Your task to perform on an android device: Go to ESPN.com Image 0: 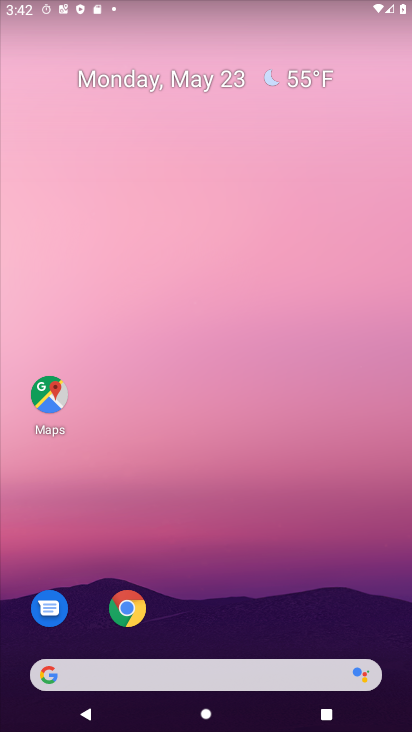
Step 0: press home button
Your task to perform on an android device: Go to ESPN.com Image 1: 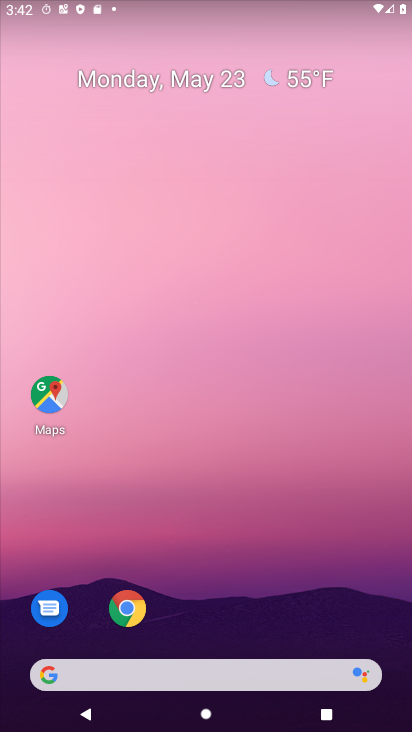
Step 1: click (123, 607)
Your task to perform on an android device: Go to ESPN.com Image 2: 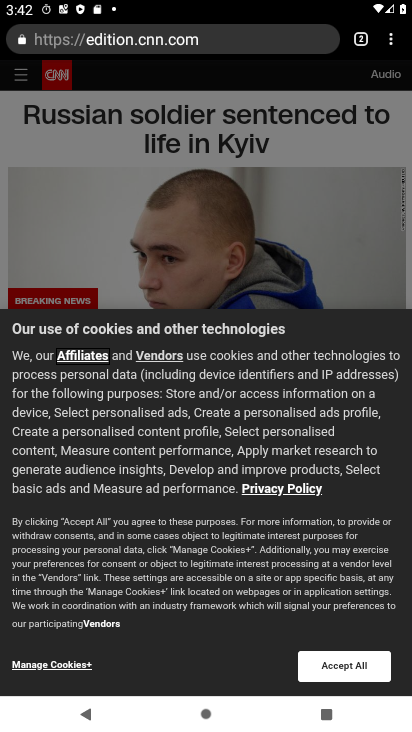
Step 2: click (363, 37)
Your task to perform on an android device: Go to ESPN.com Image 3: 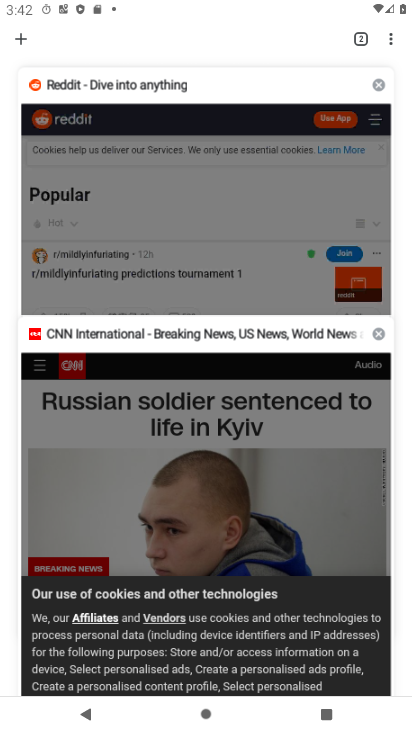
Step 3: click (24, 43)
Your task to perform on an android device: Go to ESPN.com Image 4: 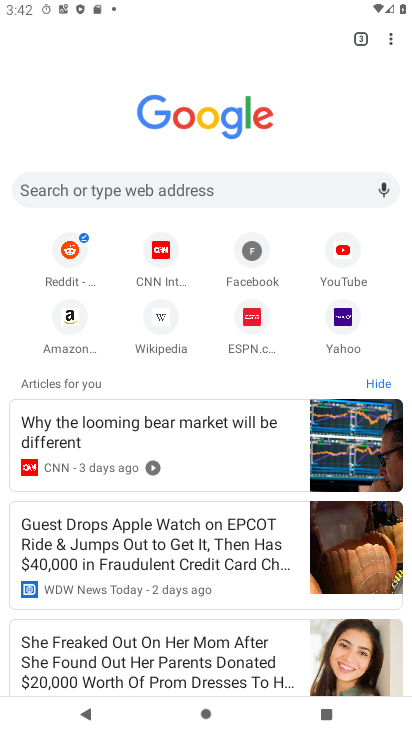
Step 4: click (254, 319)
Your task to perform on an android device: Go to ESPN.com Image 5: 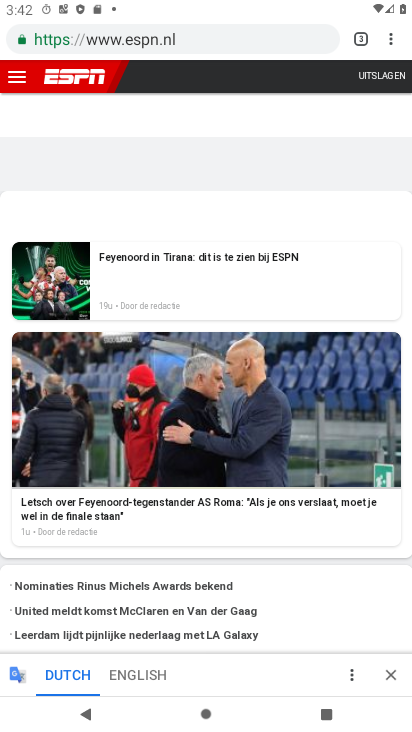
Step 5: task complete